Your task to perform on an android device: open app "Google Docs" Image 0: 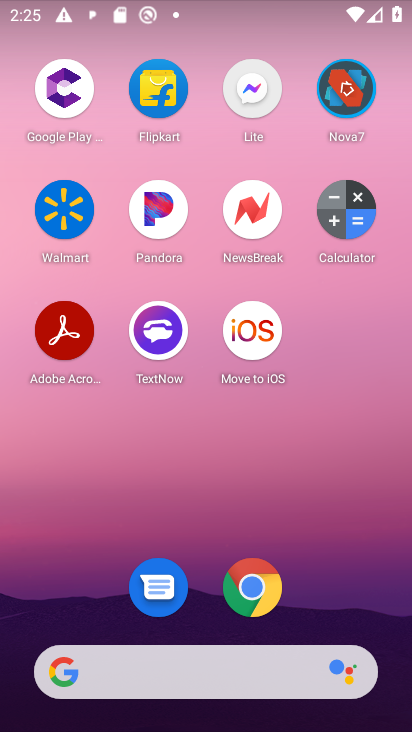
Step 0: drag from (219, 724) to (221, 34)
Your task to perform on an android device: open app "Google Docs" Image 1: 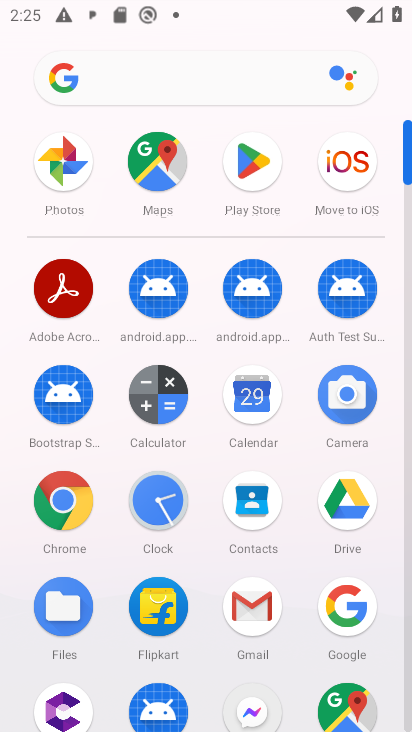
Step 1: click (237, 157)
Your task to perform on an android device: open app "Google Docs" Image 2: 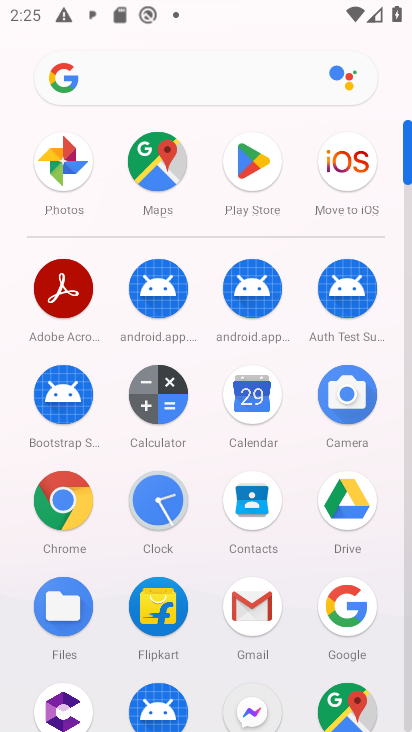
Step 2: click (237, 157)
Your task to perform on an android device: open app "Google Docs" Image 3: 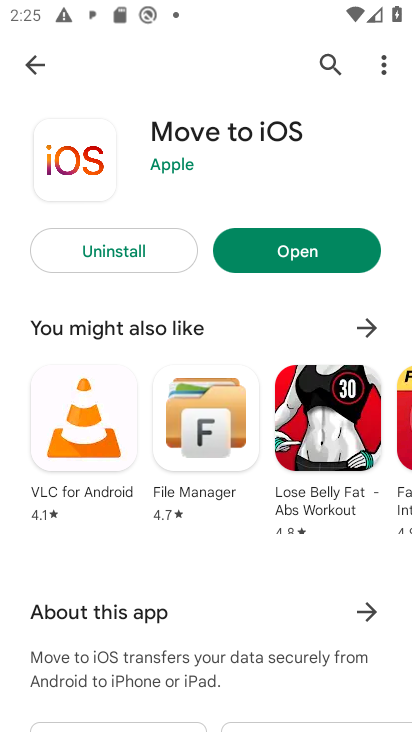
Step 3: click (324, 69)
Your task to perform on an android device: open app "Google Docs" Image 4: 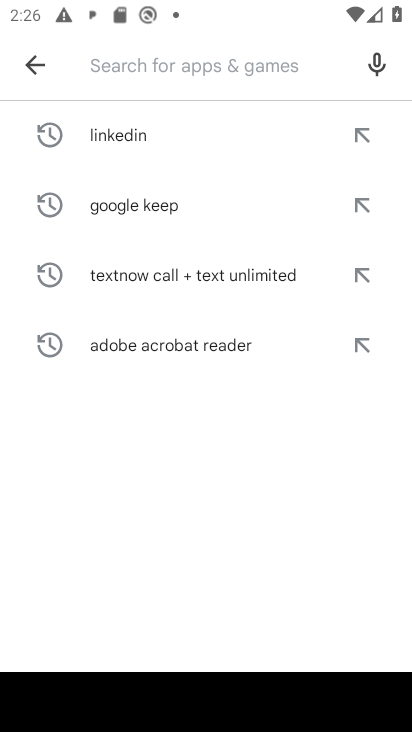
Step 4: type "google docs "
Your task to perform on an android device: open app "Google Docs" Image 5: 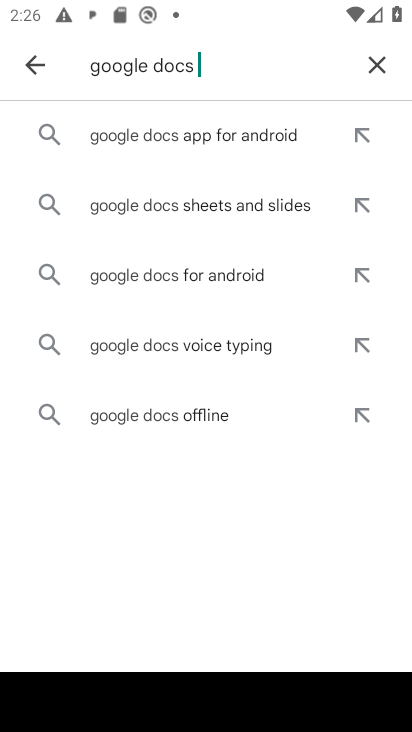
Step 5: press enter
Your task to perform on an android device: open app "Google Docs" Image 6: 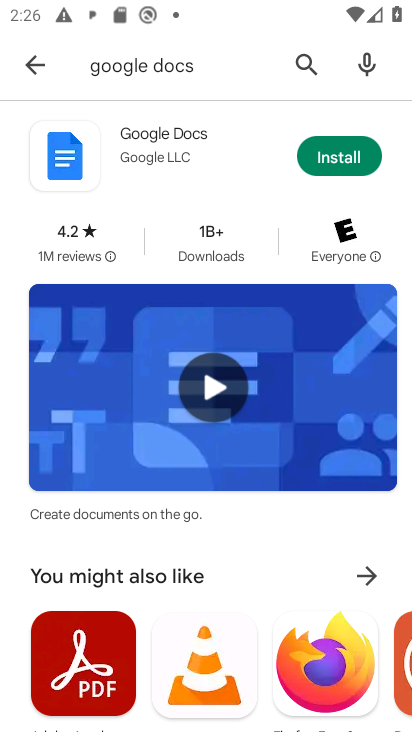
Step 6: task complete